Your task to perform on an android device: Open Wikipedia Image 0: 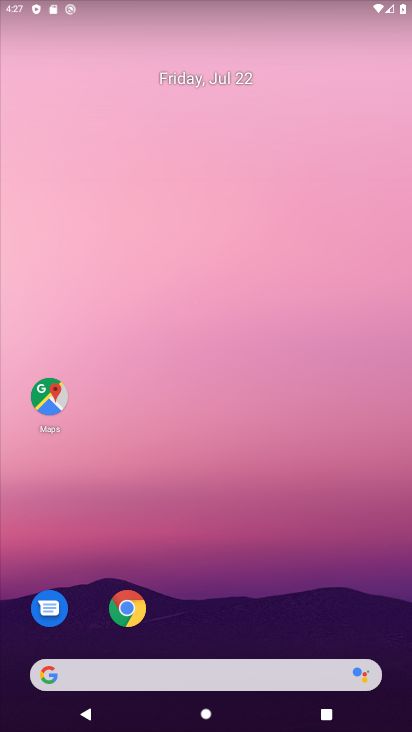
Step 0: click (101, 611)
Your task to perform on an android device: Open Wikipedia Image 1: 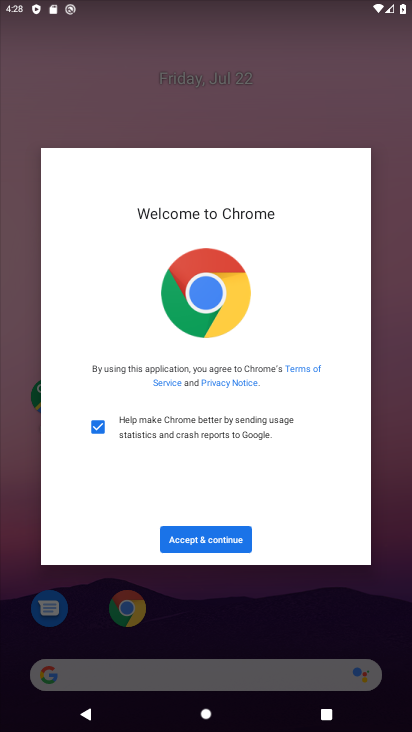
Step 1: click (201, 542)
Your task to perform on an android device: Open Wikipedia Image 2: 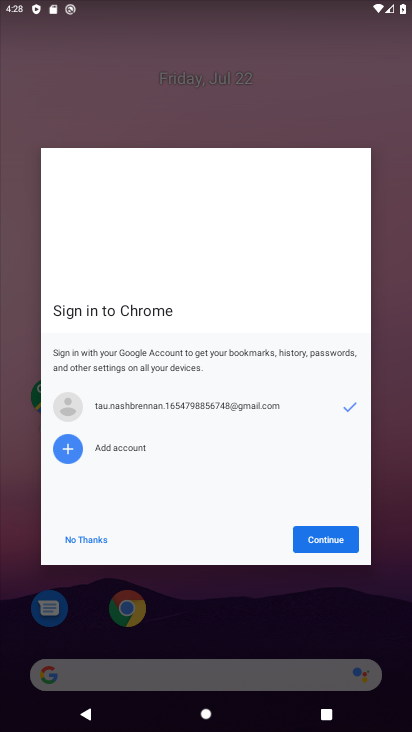
Step 2: click (297, 540)
Your task to perform on an android device: Open Wikipedia Image 3: 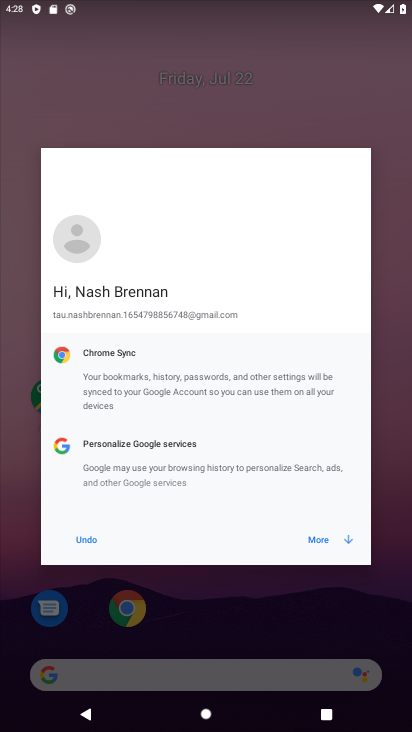
Step 3: click (339, 543)
Your task to perform on an android device: Open Wikipedia Image 4: 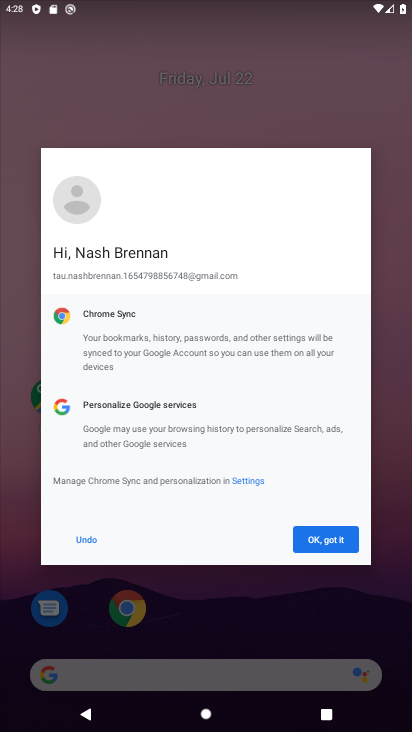
Step 4: click (312, 545)
Your task to perform on an android device: Open Wikipedia Image 5: 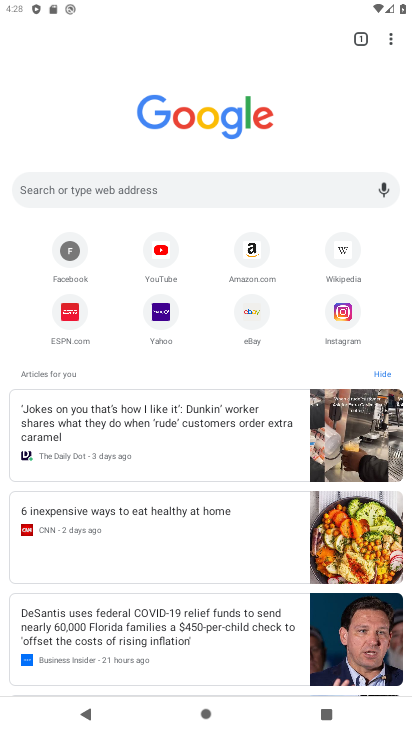
Step 5: click (344, 254)
Your task to perform on an android device: Open Wikipedia Image 6: 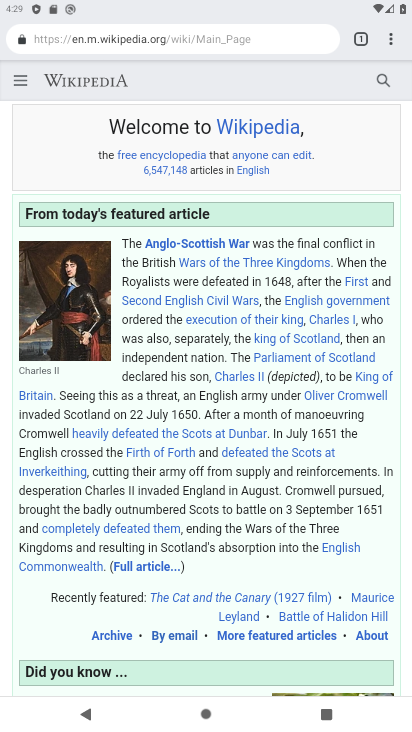
Step 6: task complete